Your task to perform on an android device: Open settings on Google Maps Image 0: 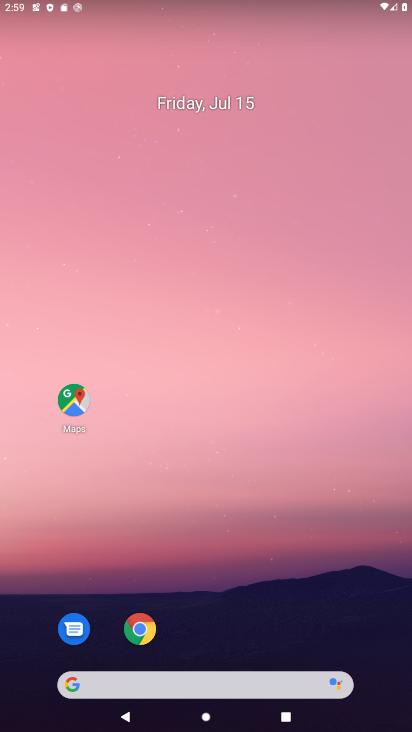
Step 0: drag from (203, 644) to (182, 72)
Your task to perform on an android device: Open settings on Google Maps Image 1: 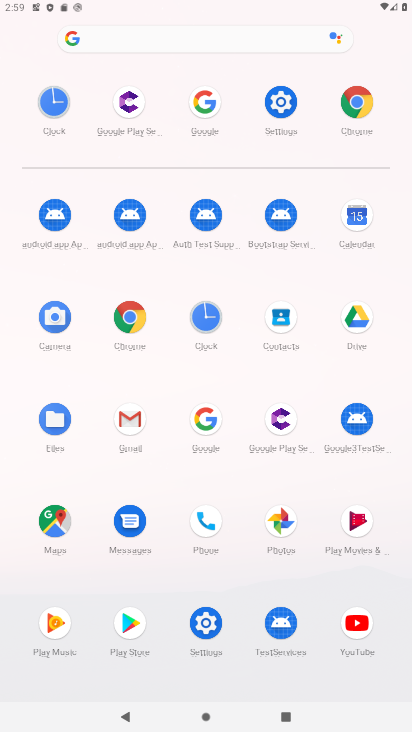
Step 1: click (47, 521)
Your task to perform on an android device: Open settings on Google Maps Image 2: 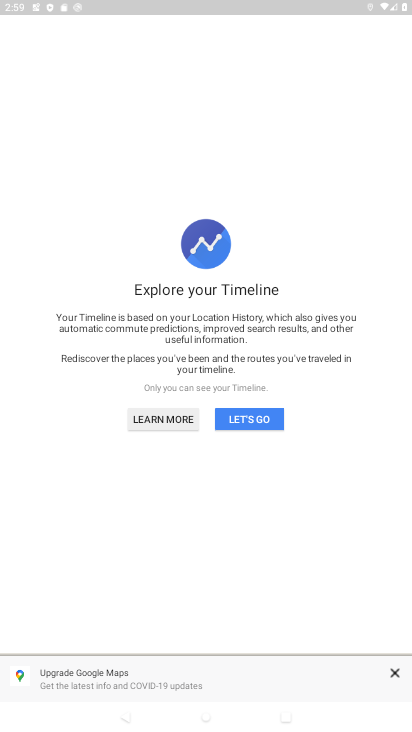
Step 2: click (244, 422)
Your task to perform on an android device: Open settings on Google Maps Image 3: 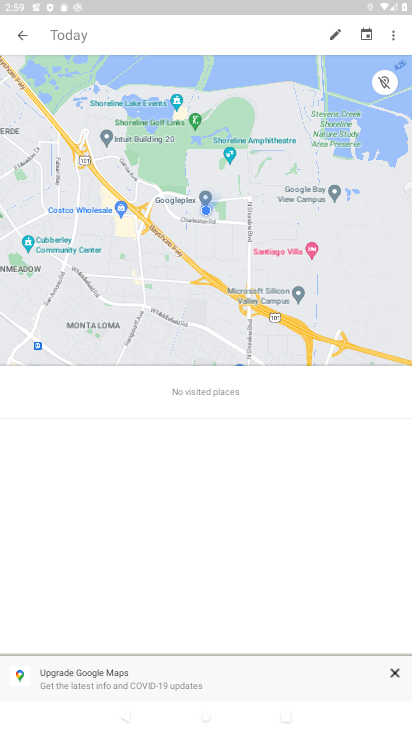
Step 3: click (19, 42)
Your task to perform on an android device: Open settings on Google Maps Image 4: 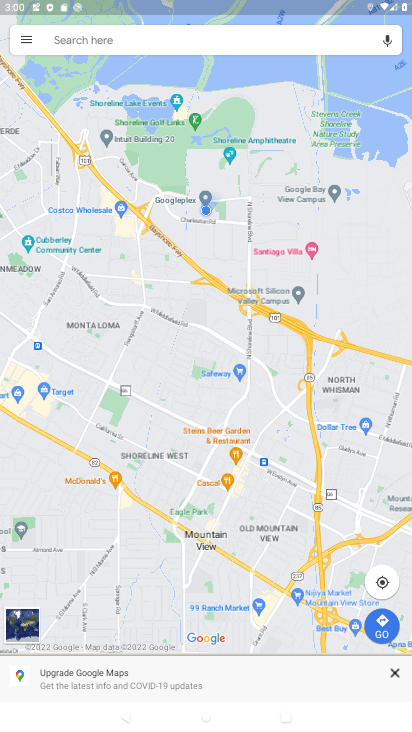
Step 4: click (26, 38)
Your task to perform on an android device: Open settings on Google Maps Image 5: 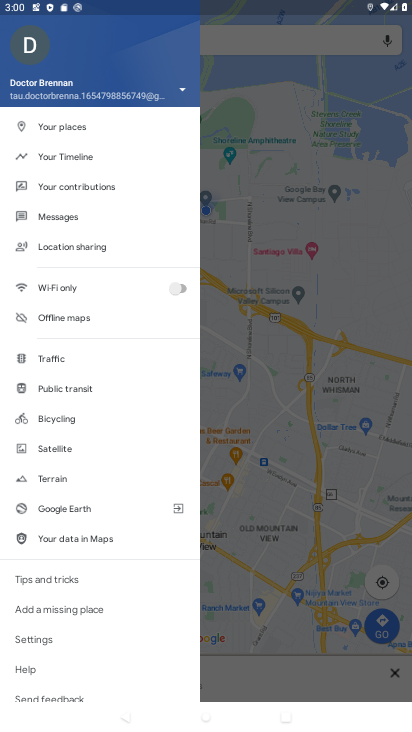
Step 5: drag from (107, 555) to (93, 463)
Your task to perform on an android device: Open settings on Google Maps Image 6: 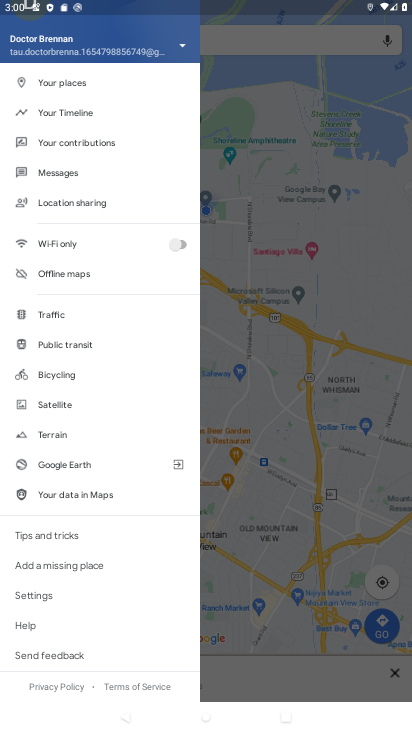
Step 6: click (62, 590)
Your task to perform on an android device: Open settings on Google Maps Image 7: 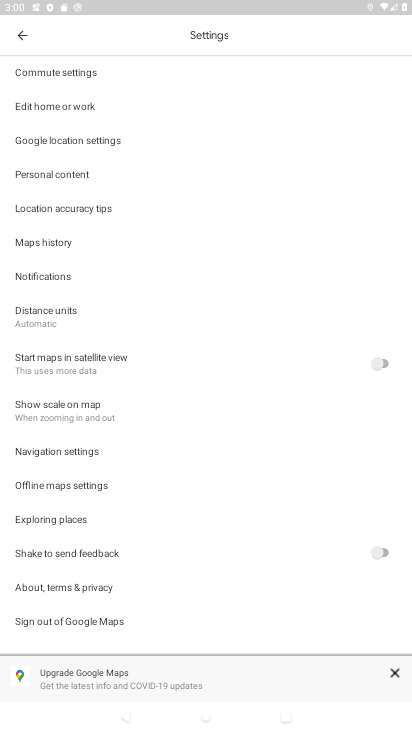
Step 7: task complete